Your task to perform on an android device: toggle improve location accuracy Image 0: 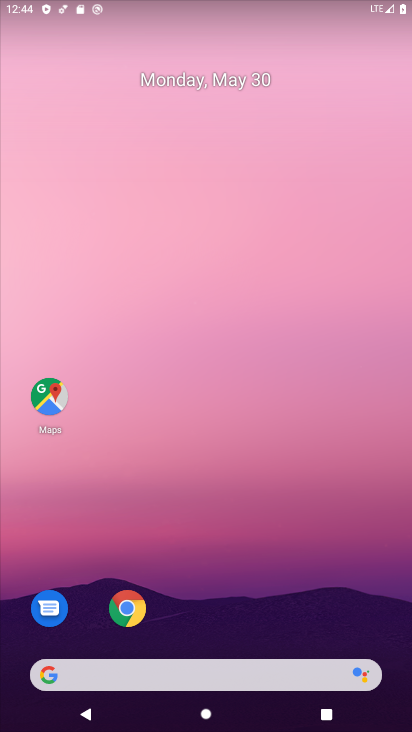
Step 0: drag from (249, 643) to (281, 28)
Your task to perform on an android device: toggle improve location accuracy Image 1: 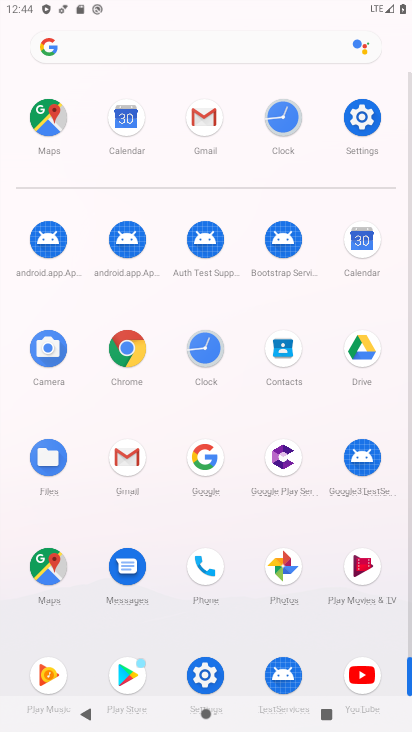
Step 1: click (206, 662)
Your task to perform on an android device: toggle improve location accuracy Image 2: 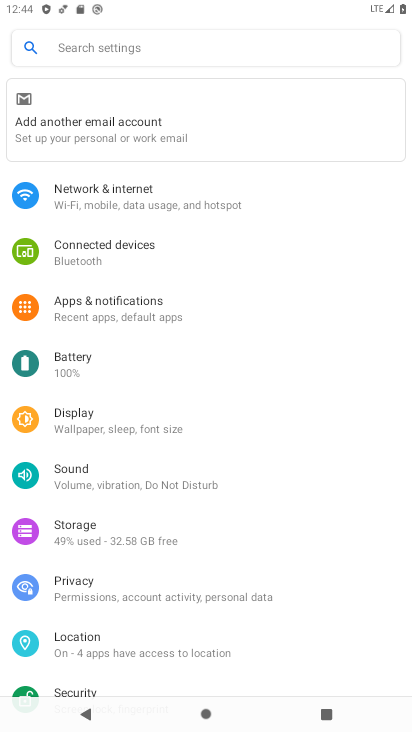
Step 2: click (113, 651)
Your task to perform on an android device: toggle improve location accuracy Image 3: 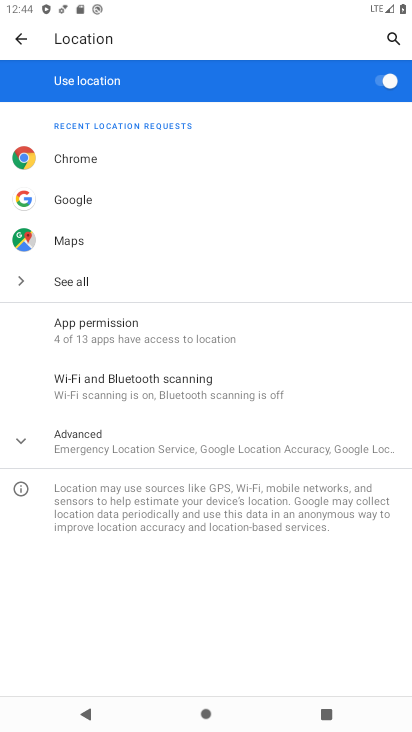
Step 3: click (134, 453)
Your task to perform on an android device: toggle improve location accuracy Image 4: 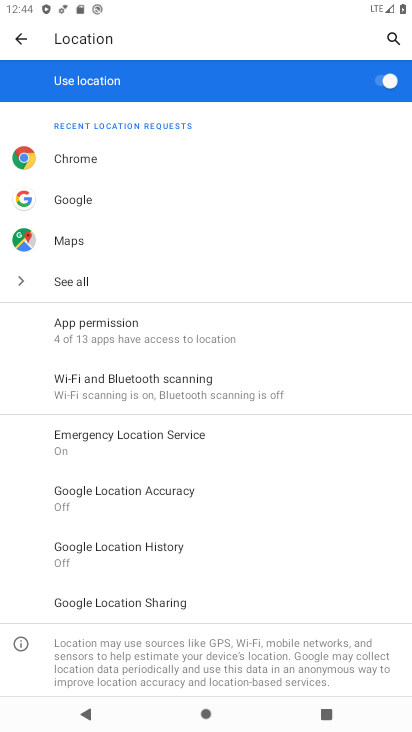
Step 4: click (150, 497)
Your task to perform on an android device: toggle improve location accuracy Image 5: 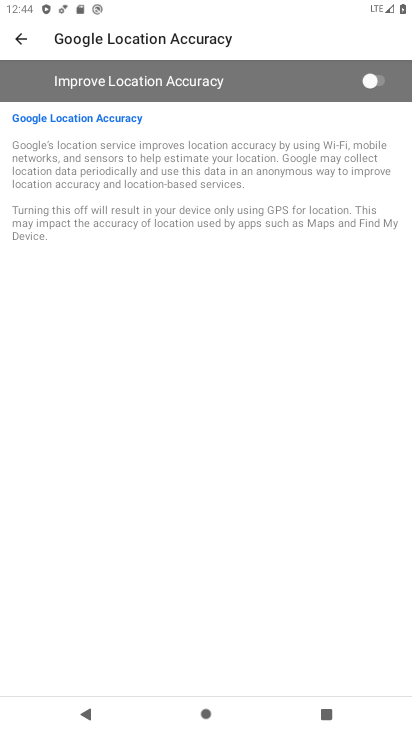
Step 5: click (392, 83)
Your task to perform on an android device: toggle improve location accuracy Image 6: 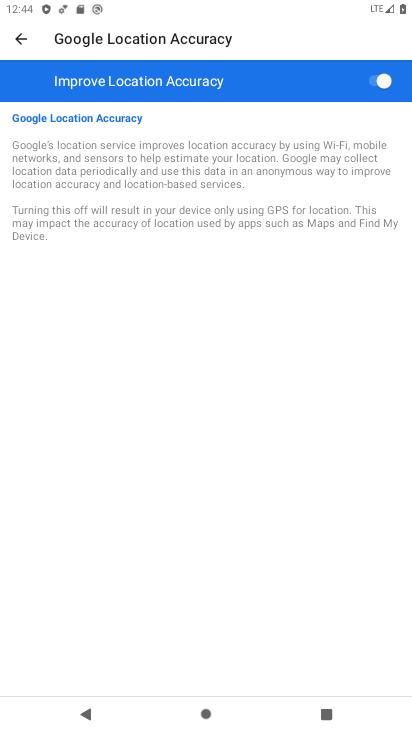
Step 6: task complete